Your task to perform on an android device: Open calendar and show me the fourth week of next month Image 0: 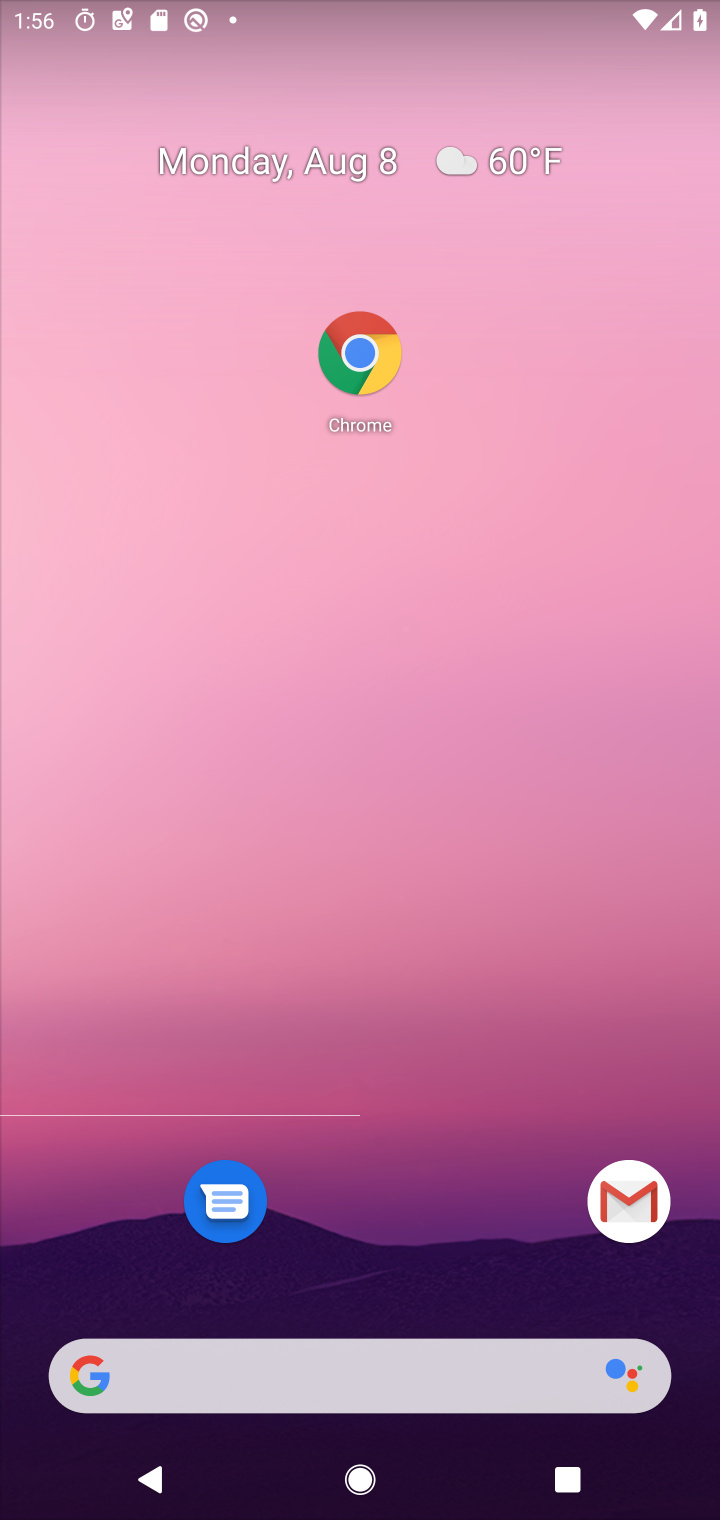
Step 0: press home button
Your task to perform on an android device: Open calendar and show me the fourth week of next month Image 1: 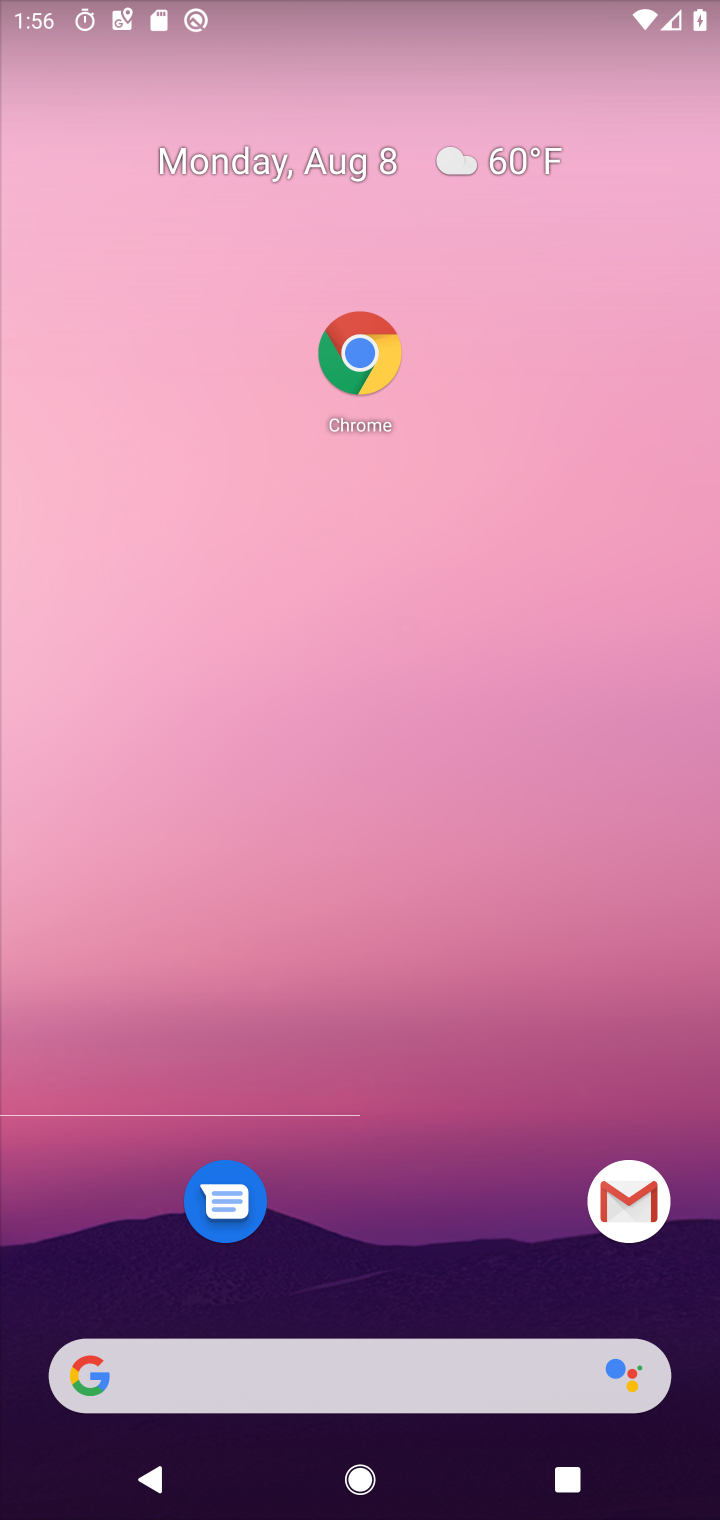
Step 1: drag from (539, 1424) to (367, 408)
Your task to perform on an android device: Open calendar and show me the fourth week of next month Image 2: 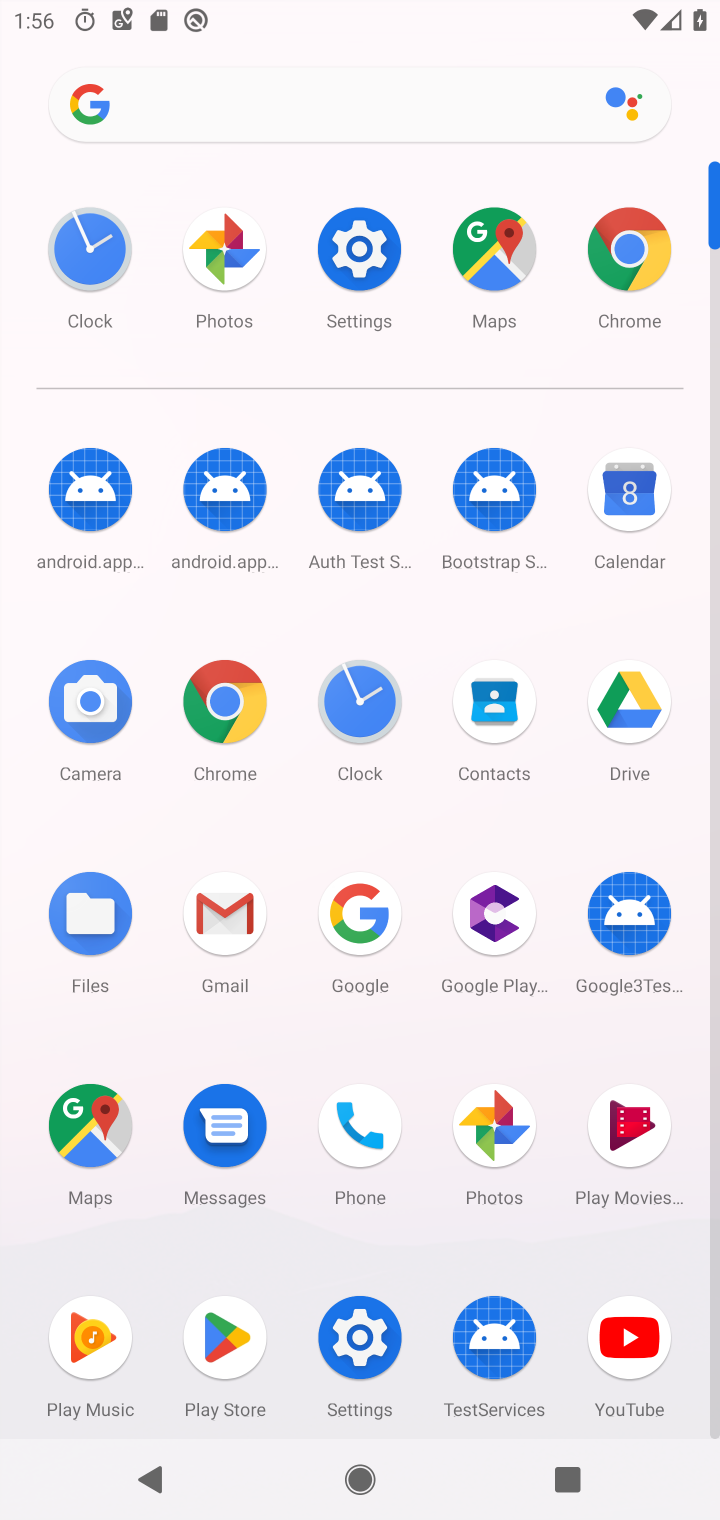
Step 2: click (636, 491)
Your task to perform on an android device: Open calendar and show me the fourth week of next month Image 3: 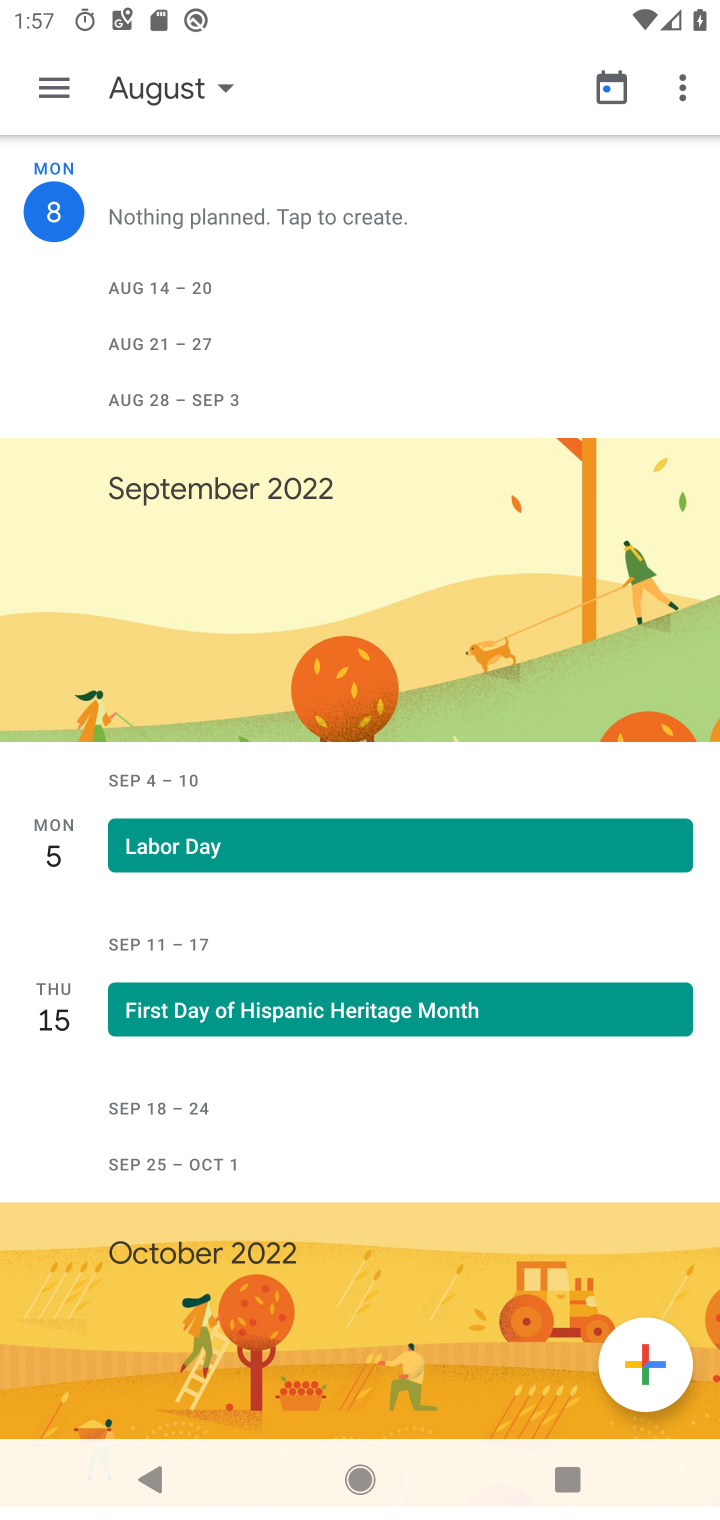
Step 3: click (62, 94)
Your task to perform on an android device: Open calendar and show me the fourth week of next month Image 4: 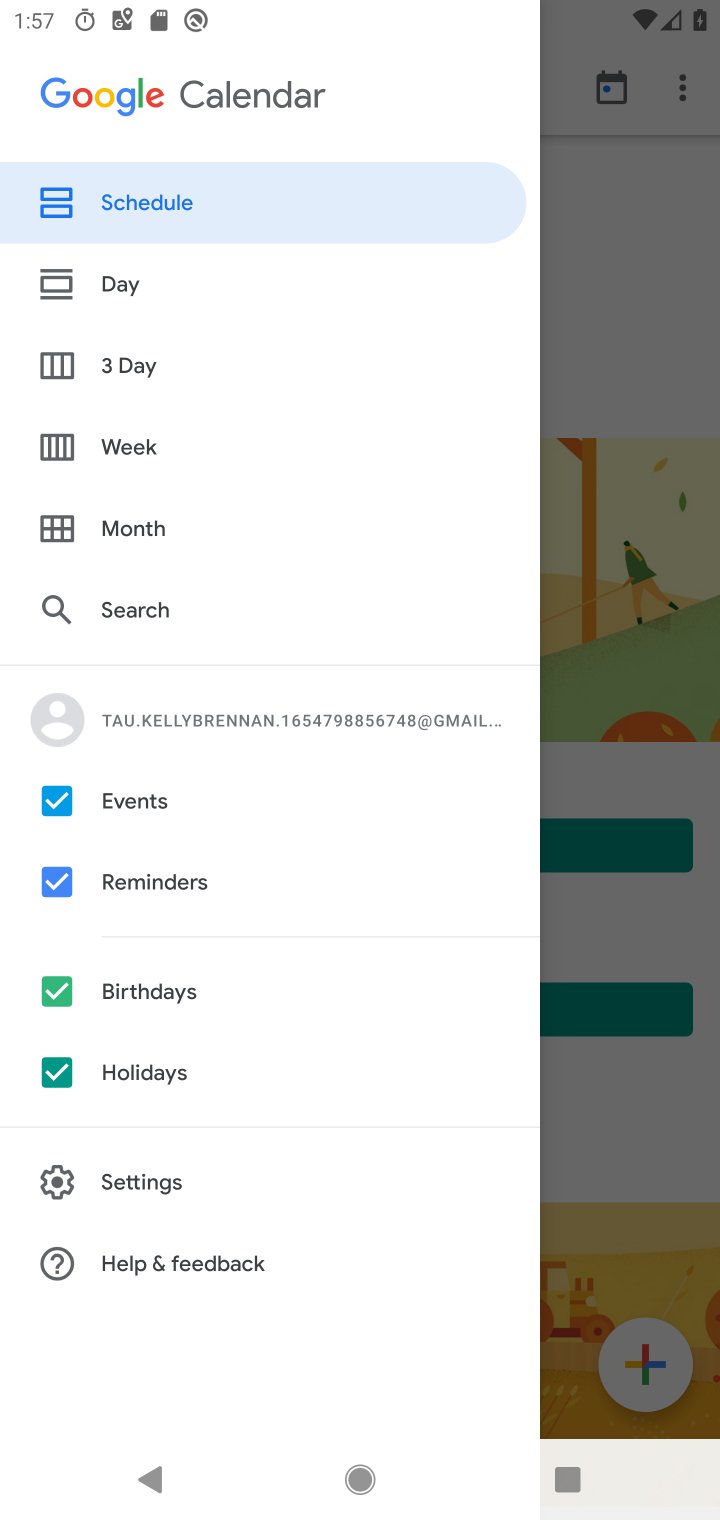
Step 4: click (187, 556)
Your task to perform on an android device: Open calendar and show me the fourth week of next month Image 5: 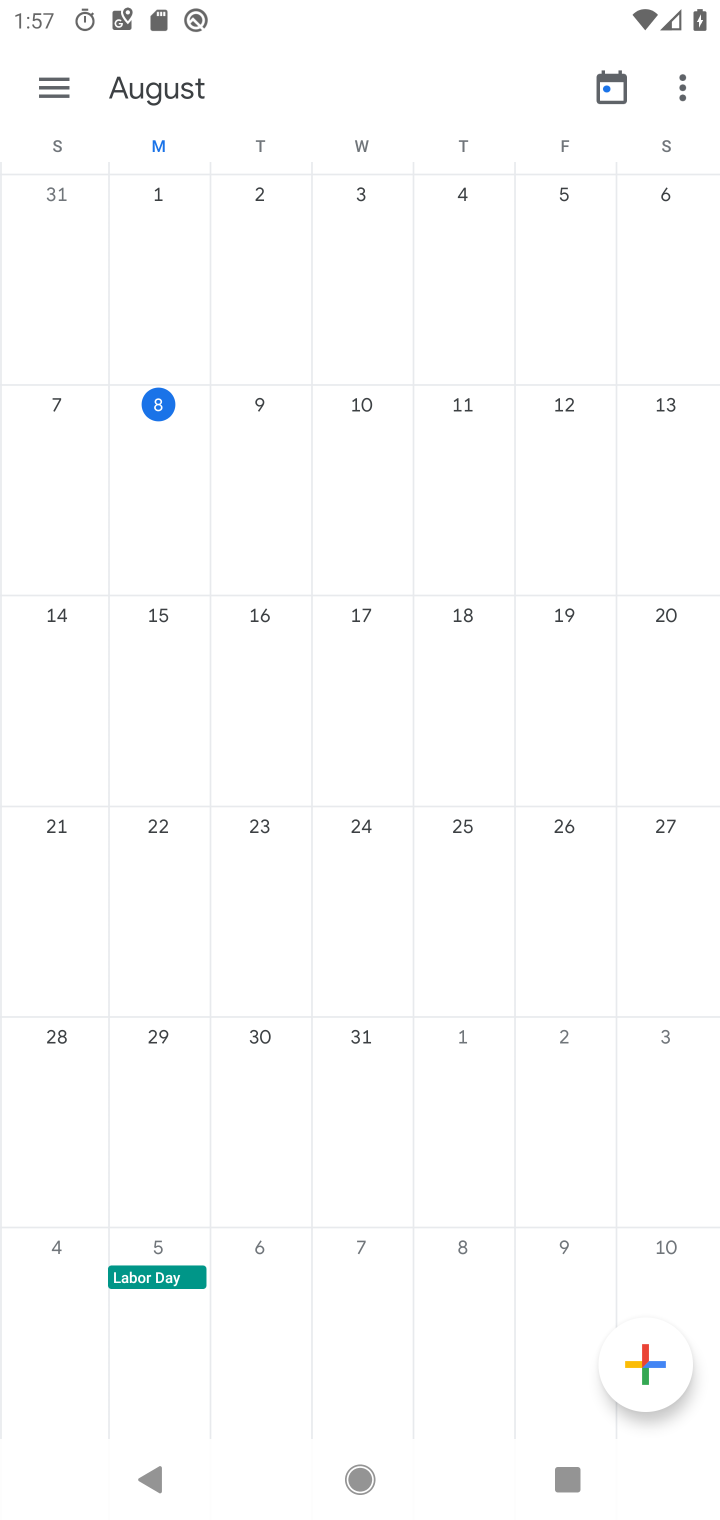
Step 5: drag from (714, 868) to (16, 666)
Your task to perform on an android device: Open calendar and show me the fourth week of next month Image 6: 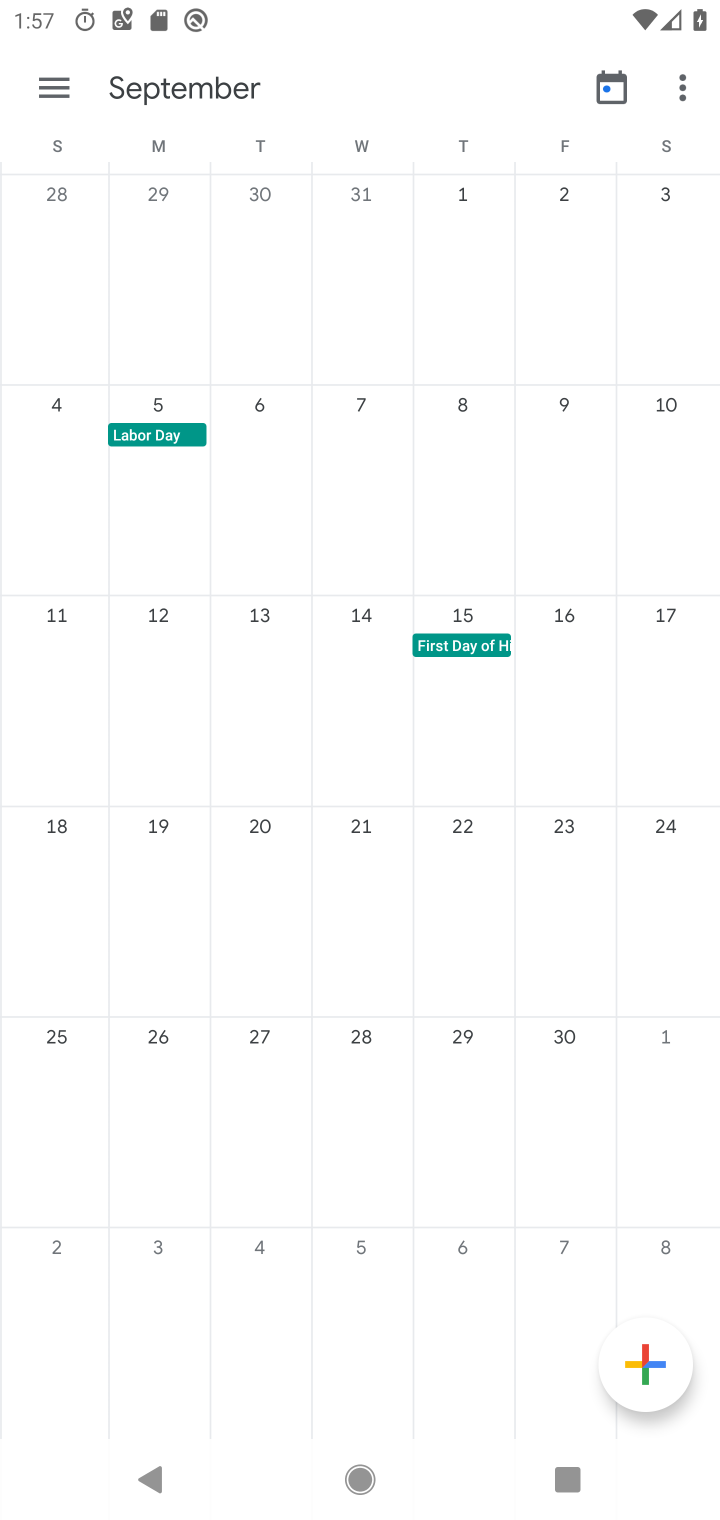
Step 6: click (164, 1066)
Your task to perform on an android device: Open calendar and show me the fourth week of next month Image 7: 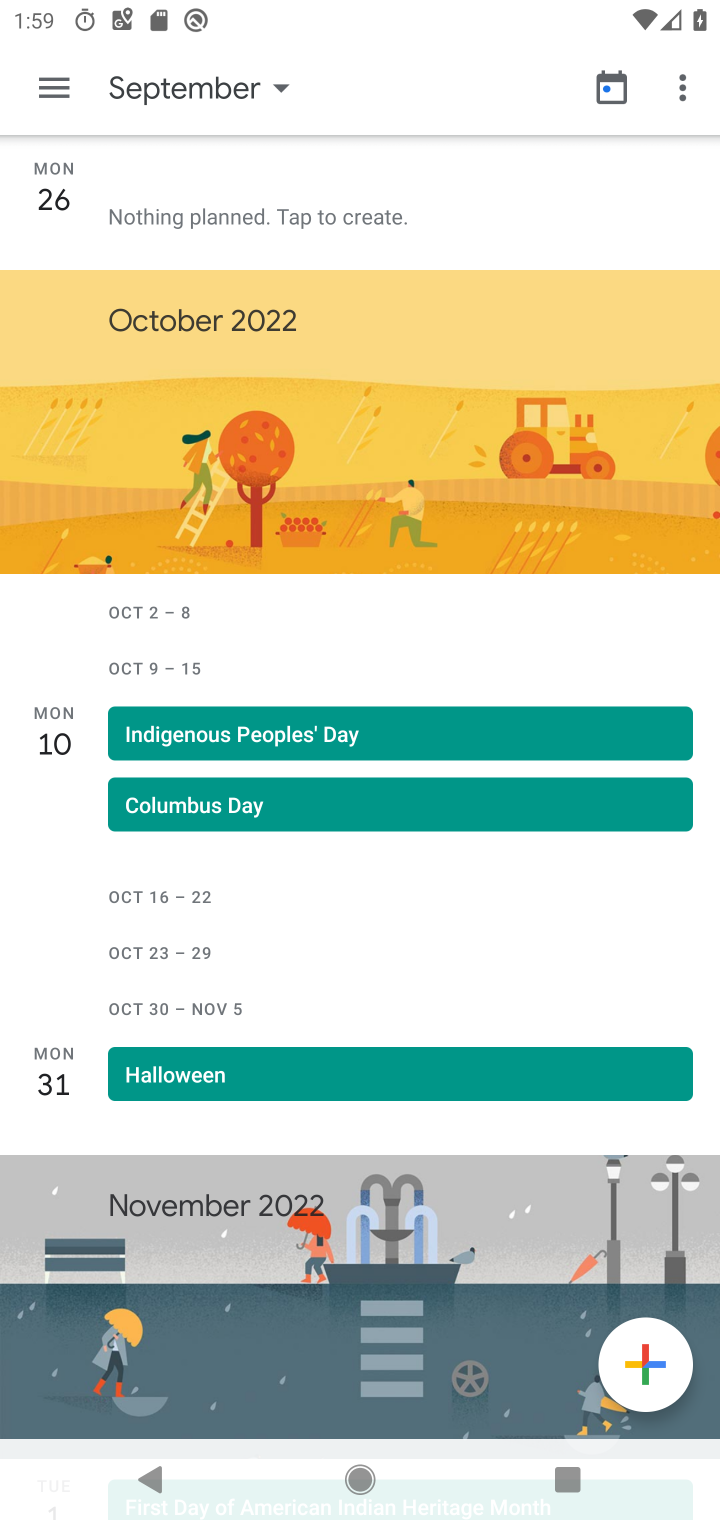
Step 7: task complete